Your task to perform on an android device: change the clock display to digital Image 0: 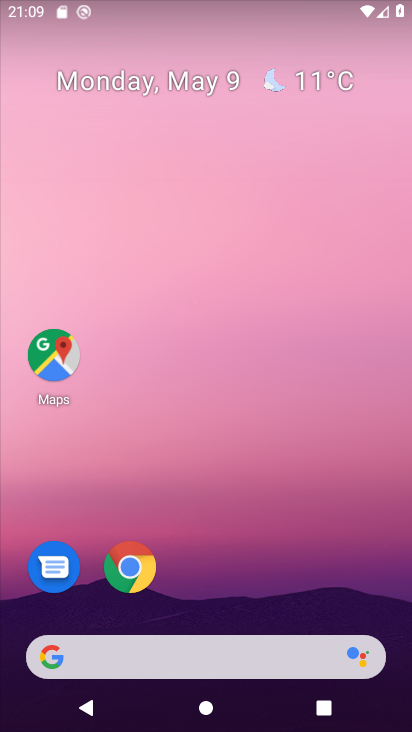
Step 0: drag from (285, 581) to (201, 52)
Your task to perform on an android device: change the clock display to digital Image 1: 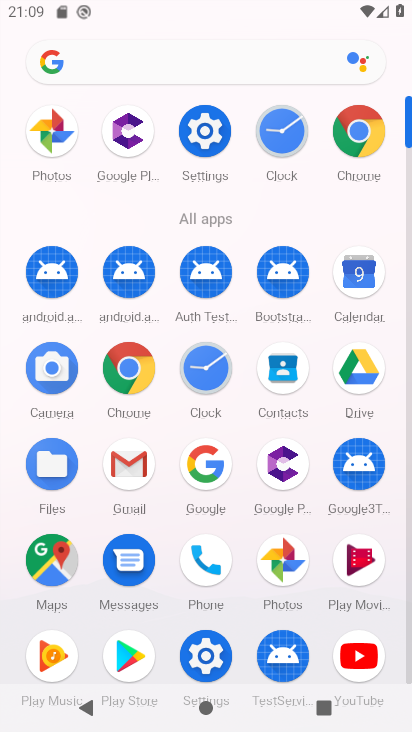
Step 1: click (214, 371)
Your task to perform on an android device: change the clock display to digital Image 2: 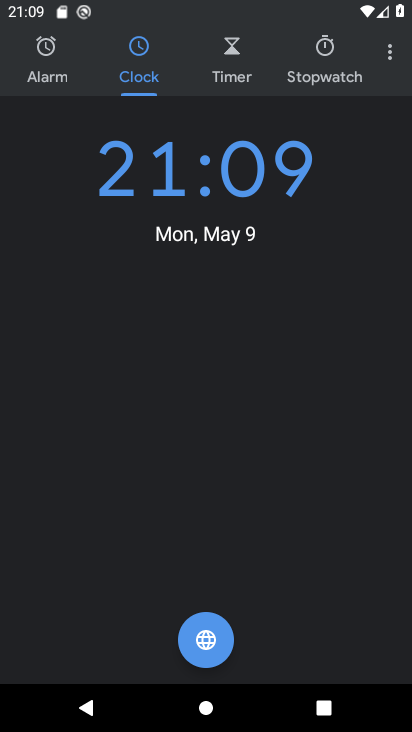
Step 2: click (394, 58)
Your task to perform on an android device: change the clock display to digital Image 3: 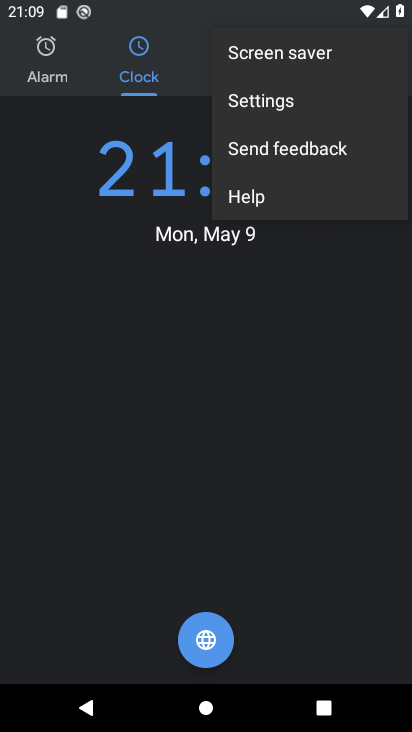
Step 3: click (305, 87)
Your task to perform on an android device: change the clock display to digital Image 4: 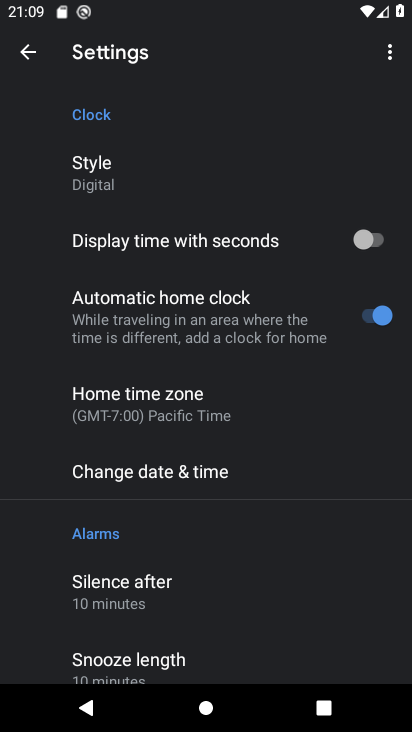
Step 4: click (149, 167)
Your task to perform on an android device: change the clock display to digital Image 5: 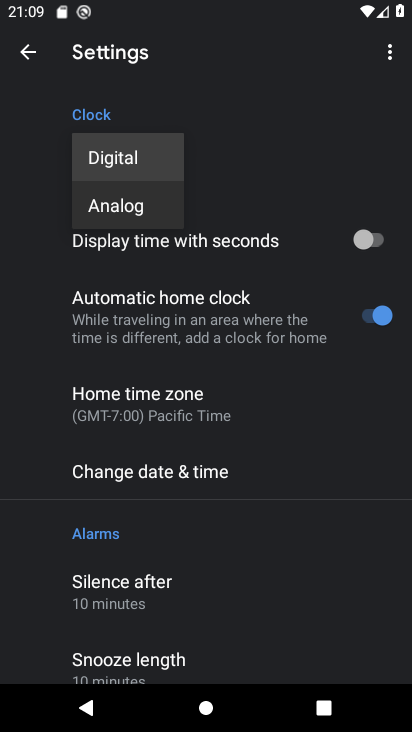
Step 5: task complete